Your task to perform on an android device: set the timer Image 0: 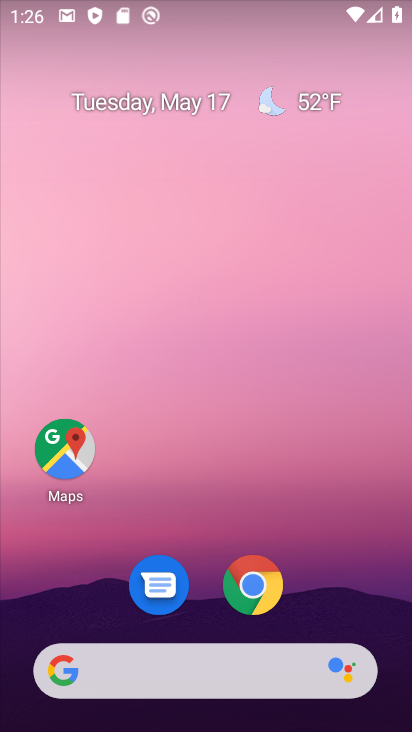
Step 0: drag from (320, 472) to (316, 78)
Your task to perform on an android device: set the timer Image 1: 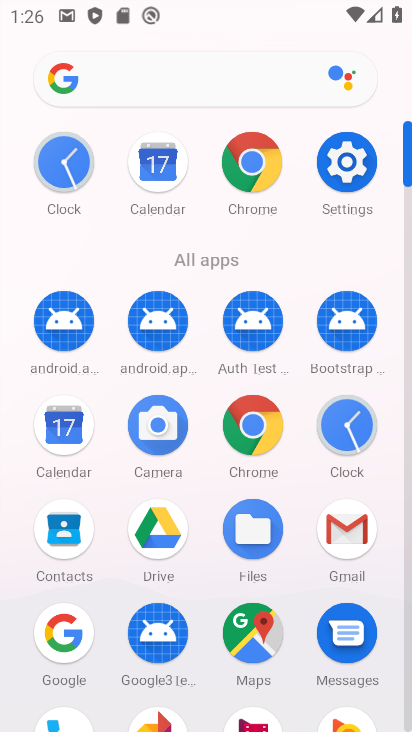
Step 1: click (349, 410)
Your task to perform on an android device: set the timer Image 2: 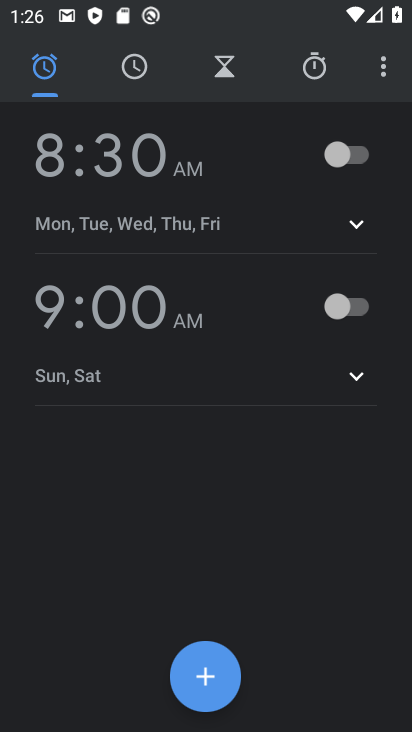
Step 2: click (221, 73)
Your task to perform on an android device: set the timer Image 3: 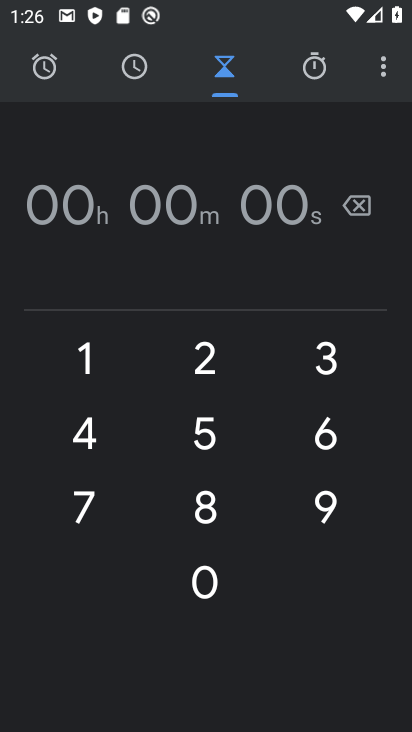
Step 3: click (94, 377)
Your task to perform on an android device: set the timer Image 4: 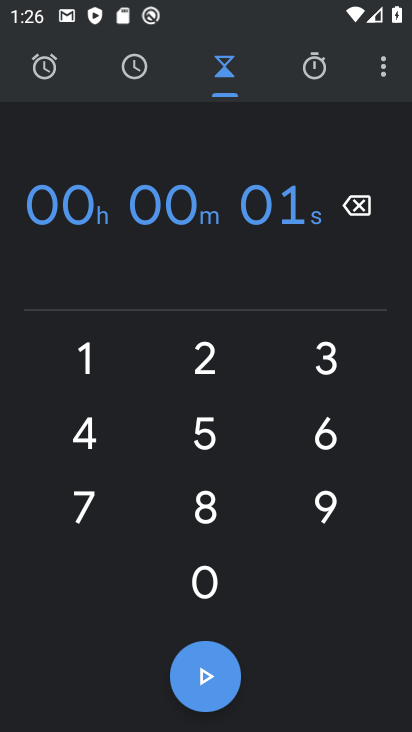
Step 4: click (202, 360)
Your task to perform on an android device: set the timer Image 5: 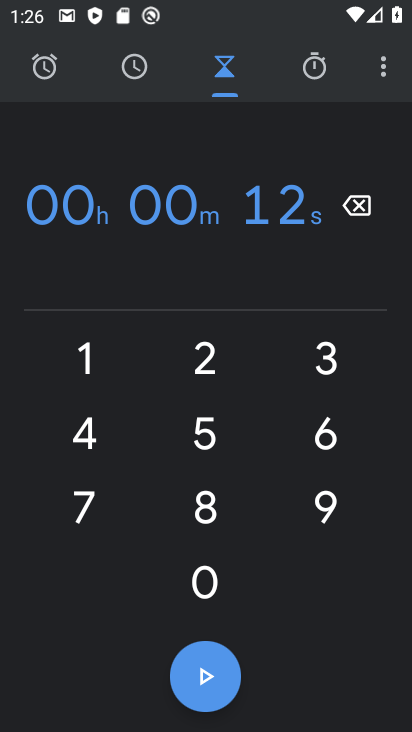
Step 5: task complete